Your task to perform on an android device: change notifications settings Image 0: 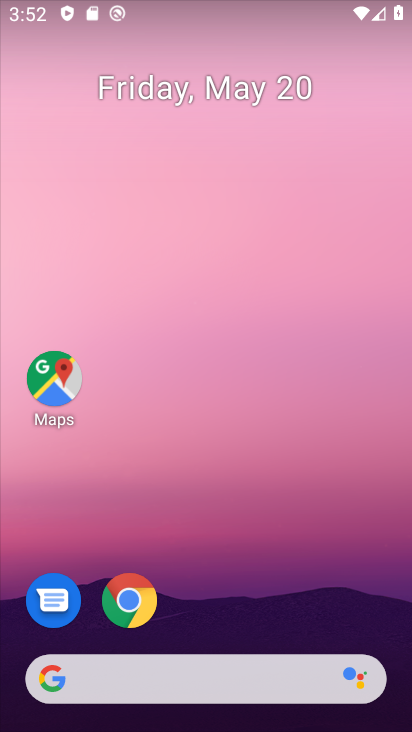
Step 0: drag from (303, 553) to (231, 0)
Your task to perform on an android device: change notifications settings Image 1: 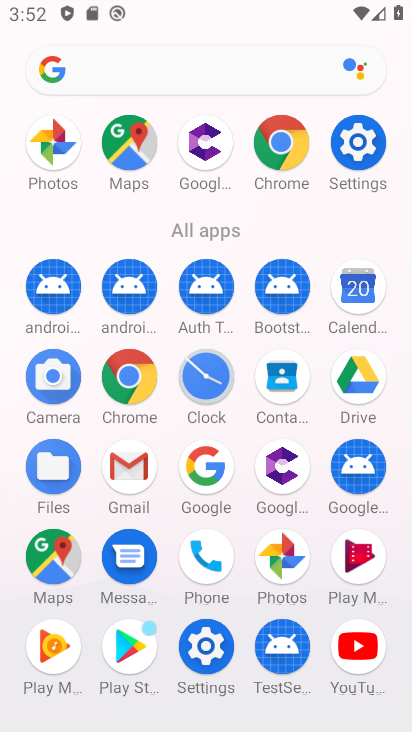
Step 1: drag from (0, 578) to (3, 260)
Your task to perform on an android device: change notifications settings Image 2: 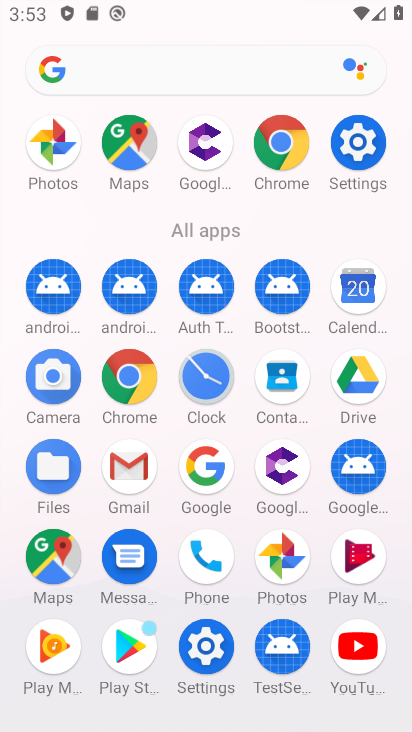
Step 2: click (205, 644)
Your task to perform on an android device: change notifications settings Image 3: 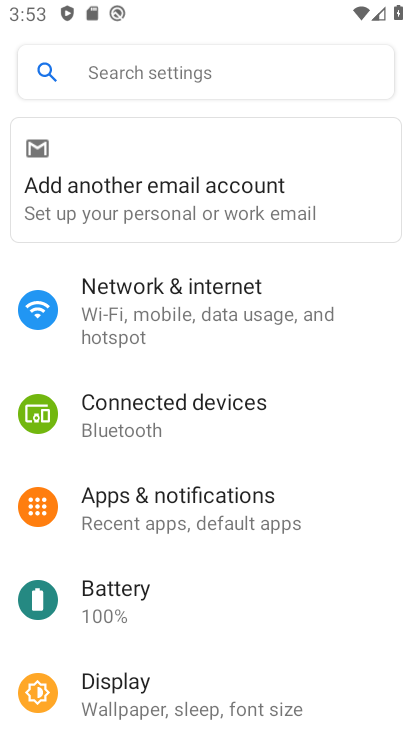
Step 3: click (187, 515)
Your task to perform on an android device: change notifications settings Image 4: 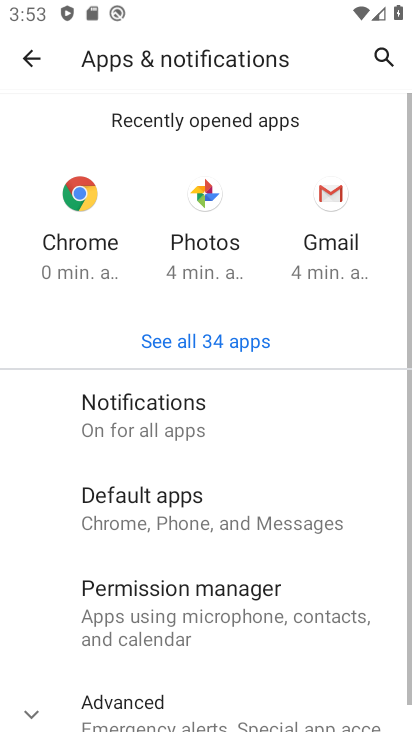
Step 4: click (41, 698)
Your task to perform on an android device: change notifications settings Image 5: 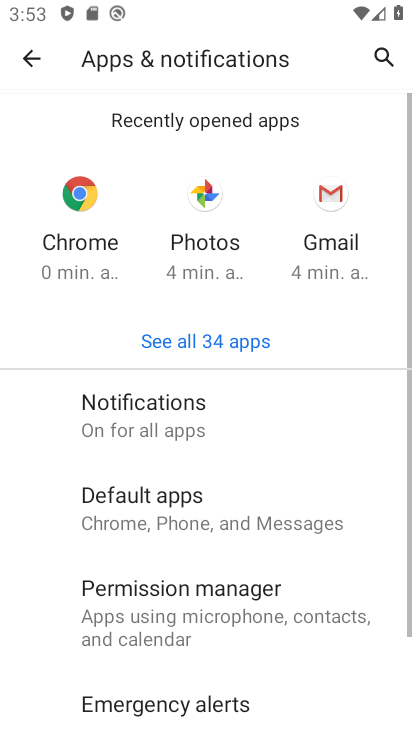
Step 5: drag from (212, 598) to (267, 167)
Your task to perform on an android device: change notifications settings Image 6: 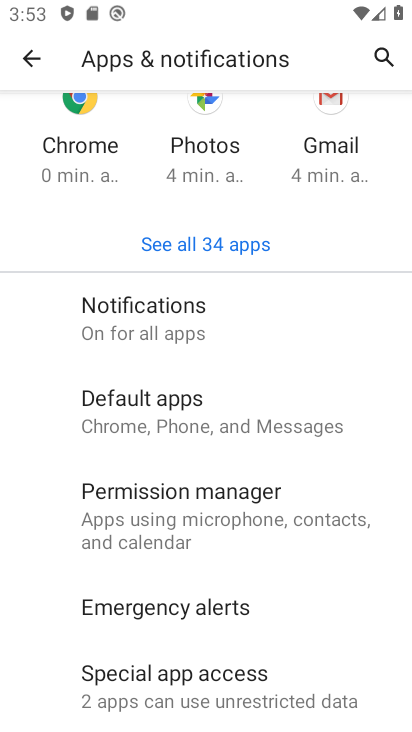
Step 6: click (217, 303)
Your task to perform on an android device: change notifications settings Image 7: 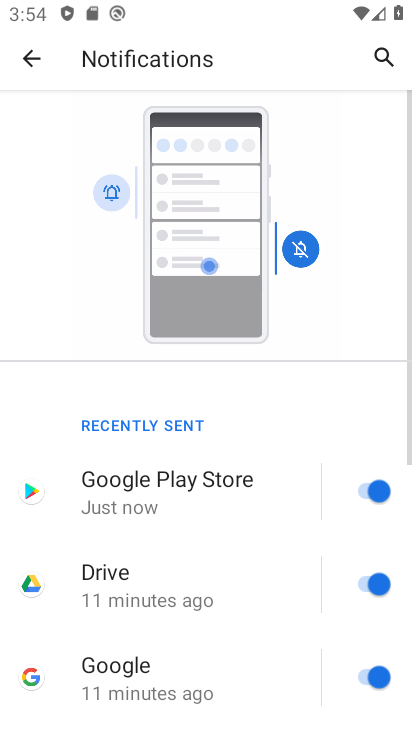
Step 7: drag from (182, 543) to (245, 101)
Your task to perform on an android device: change notifications settings Image 8: 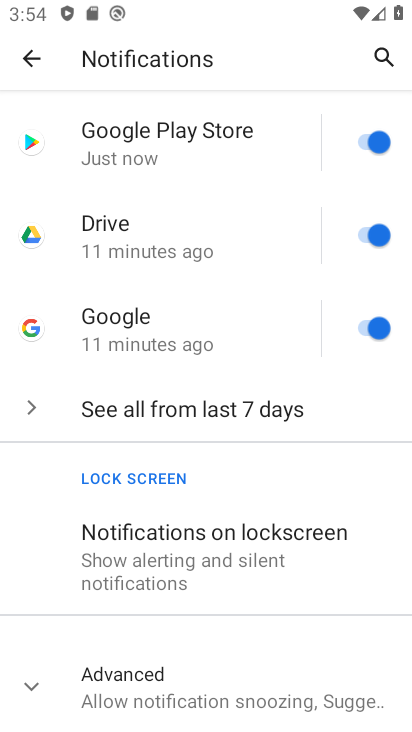
Step 8: click (33, 50)
Your task to perform on an android device: change notifications settings Image 9: 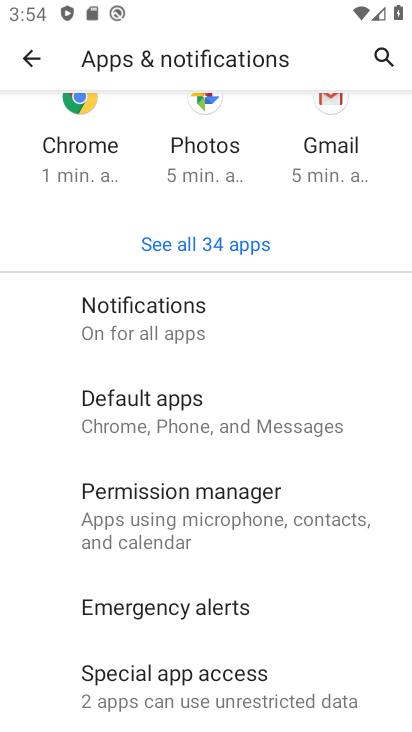
Step 9: task complete